Your task to perform on an android device: Clear the shopping cart on amazon.com. Add razer blade to the cart on amazon.com Image 0: 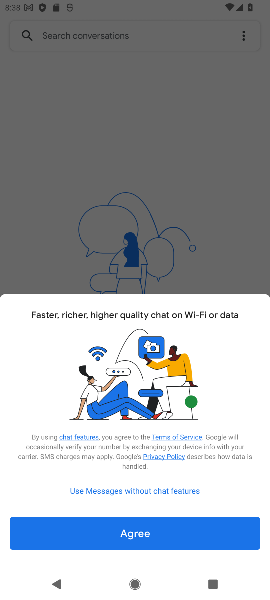
Step 0: press home button
Your task to perform on an android device: Clear the shopping cart on amazon.com. Add razer blade to the cart on amazon.com Image 1: 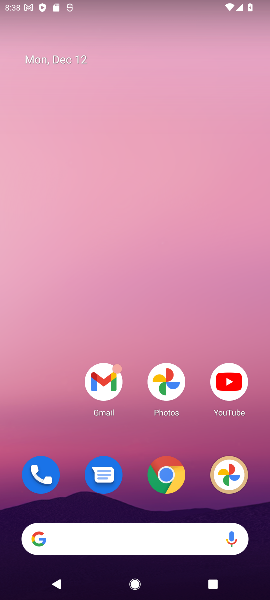
Step 1: click (167, 474)
Your task to perform on an android device: Clear the shopping cart on amazon.com. Add razer blade to the cart on amazon.com Image 2: 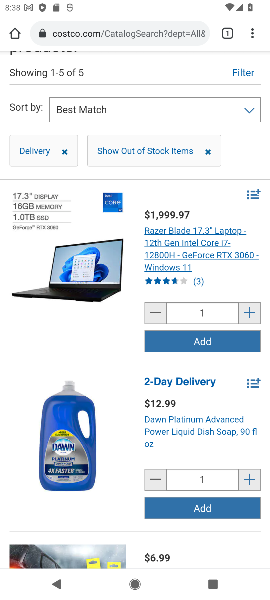
Step 2: click (163, 30)
Your task to perform on an android device: Clear the shopping cart on amazon.com. Add razer blade to the cart on amazon.com Image 3: 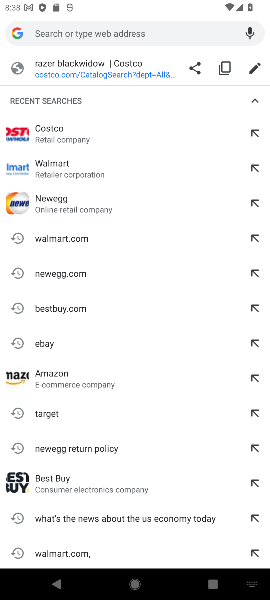
Step 3: type "amazon.com"
Your task to perform on an android device: Clear the shopping cart on amazon.com. Add razer blade to the cart on amazon.com Image 4: 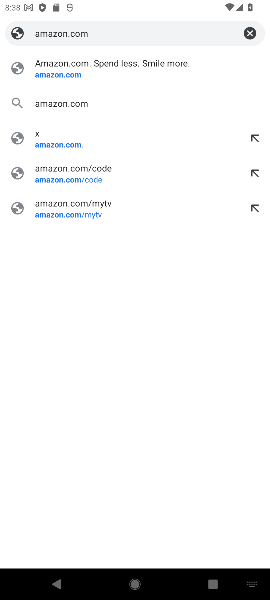
Step 4: click (58, 103)
Your task to perform on an android device: Clear the shopping cart on amazon.com. Add razer blade to the cart on amazon.com Image 5: 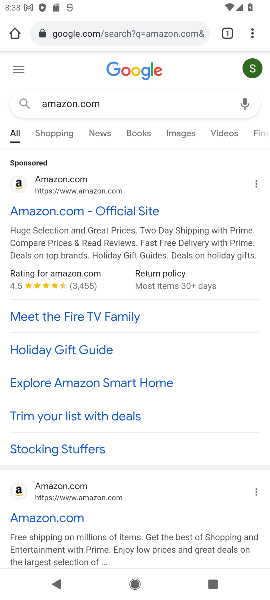
Step 5: click (65, 518)
Your task to perform on an android device: Clear the shopping cart on amazon.com. Add razer blade to the cart on amazon.com Image 6: 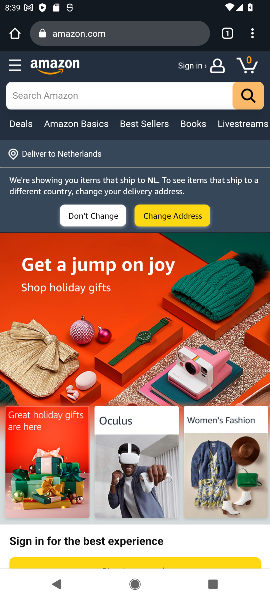
Step 6: click (248, 64)
Your task to perform on an android device: Clear the shopping cart on amazon.com. Add razer blade to the cart on amazon.com Image 7: 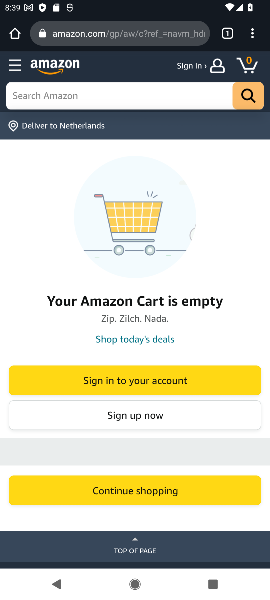
Step 7: click (144, 89)
Your task to perform on an android device: Clear the shopping cart on amazon.com. Add razer blade to the cart on amazon.com Image 8: 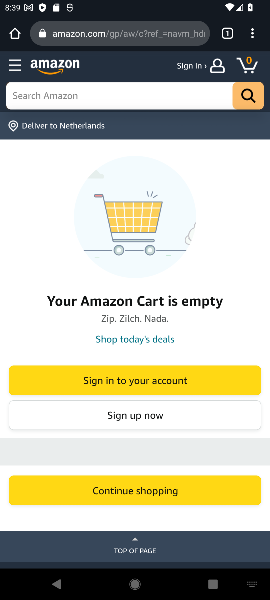
Step 8: type "razer blade"
Your task to perform on an android device: Clear the shopping cart on amazon.com. Add razer blade to the cart on amazon.com Image 9: 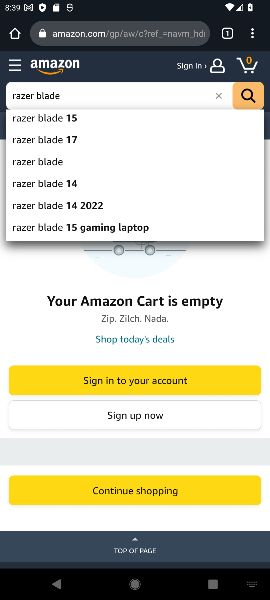
Step 9: click (45, 158)
Your task to perform on an android device: Clear the shopping cart on amazon.com. Add razer blade to the cart on amazon.com Image 10: 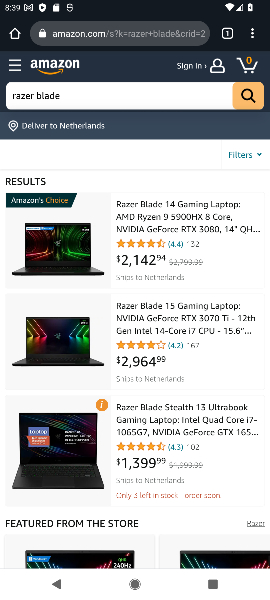
Step 10: click (164, 229)
Your task to perform on an android device: Clear the shopping cart on amazon.com. Add razer blade to the cart on amazon.com Image 11: 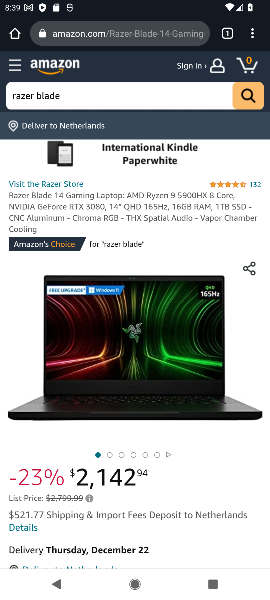
Step 11: drag from (176, 488) to (228, 123)
Your task to perform on an android device: Clear the shopping cart on amazon.com. Add razer blade to the cart on amazon.com Image 12: 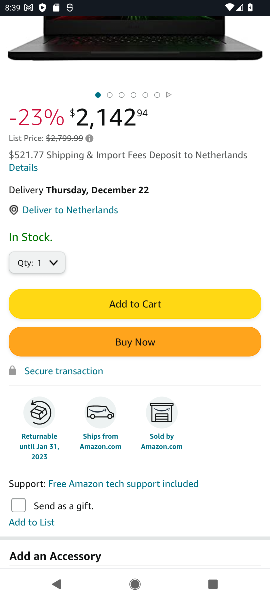
Step 12: click (135, 301)
Your task to perform on an android device: Clear the shopping cart on amazon.com. Add razer blade to the cart on amazon.com Image 13: 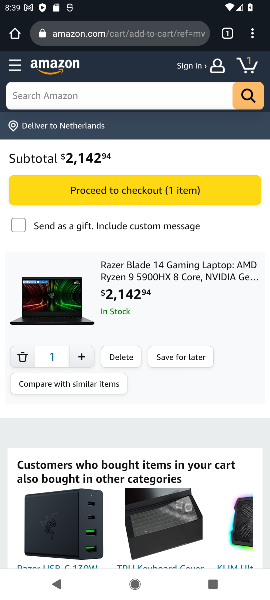
Step 13: task complete